Your task to perform on an android device: Do I have any events today? Image 0: 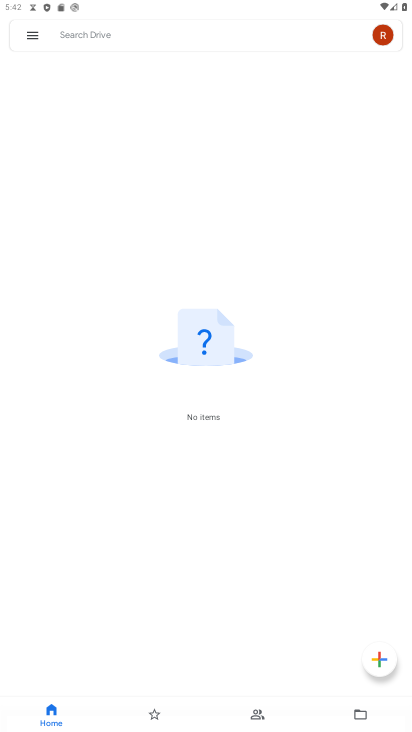
Step 0: press home button
Your task to perform on an android device: Do I have any events today? Image 1: 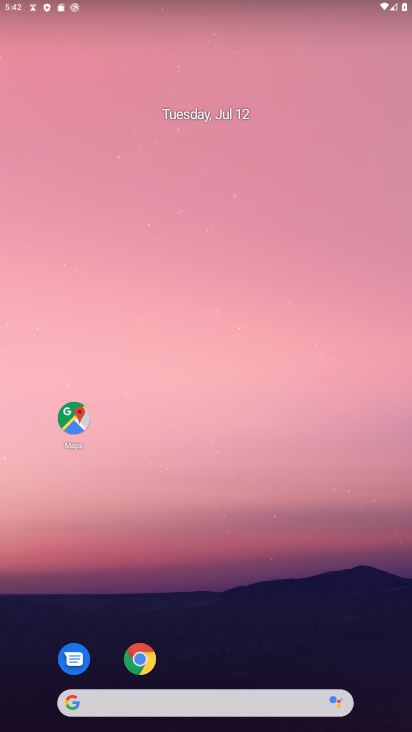
Step 1: drag from (207, 678) to (220, 79)
Your task to perform on an android device: Do I have any events today? Image 2: 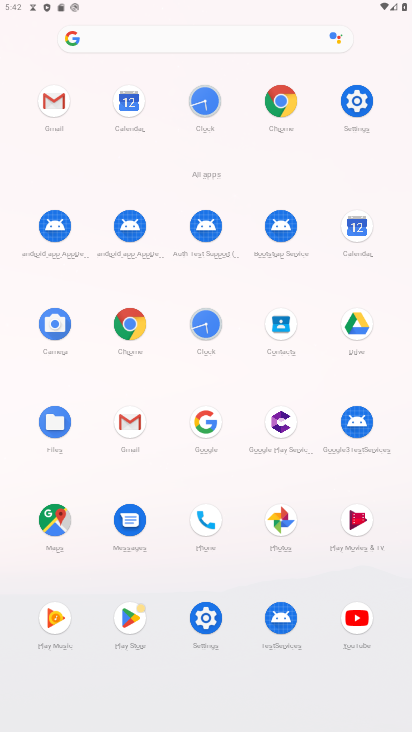
Step 2: click (358, 237)
Your task to perform on an android device: Do I have any events today? Image 3: 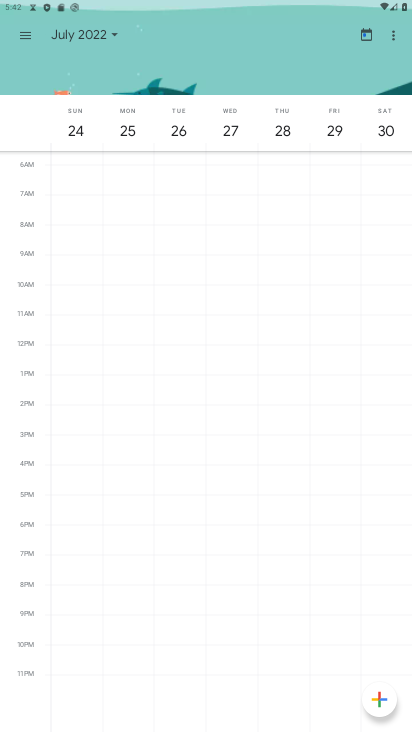
Step 3: click (27, 37)
Your task to perform on an android device: Do I have any events today? Image 4: 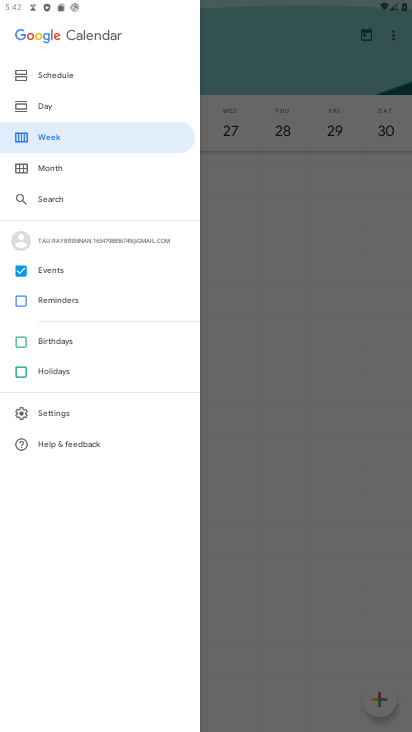
Step 4: click (57, 105)
Your task to perform on an android device: Do I have any events today? Image 5: 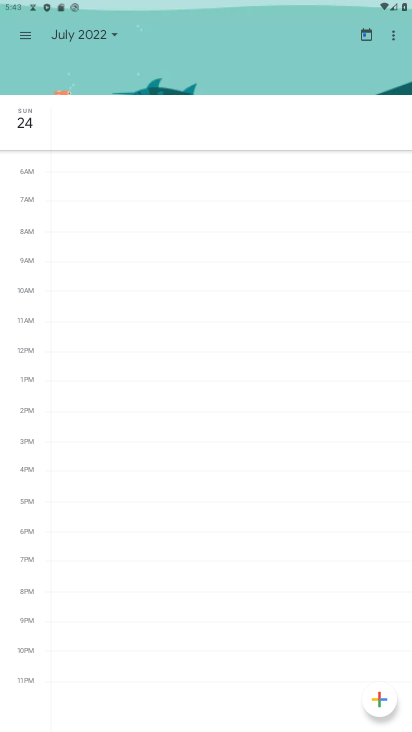
Step 5: task complete